Your task to perform on an android device: move an email to a new category in the gmail app Image 0: 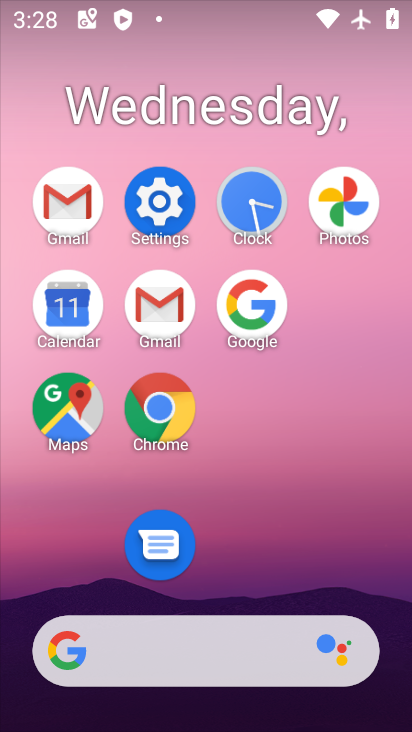
Step 0: click (183, 308)
Your task to perform on an android device: move an email to a new category in the gmail app Image 1: 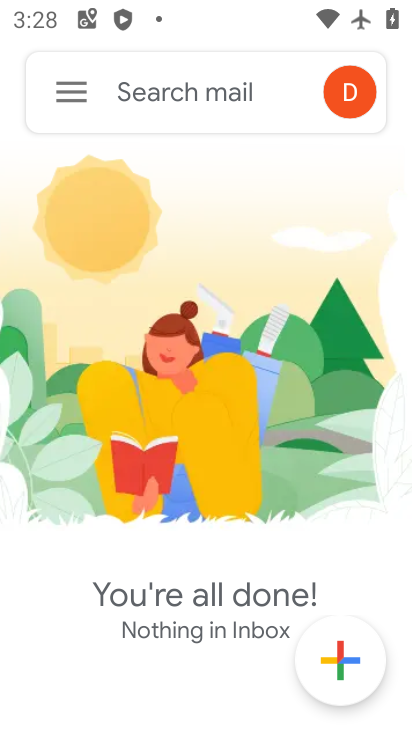
Step 1: click (92, 87)
Your task to perform on an android device: move an email to a new category in the gmail app Image 2: 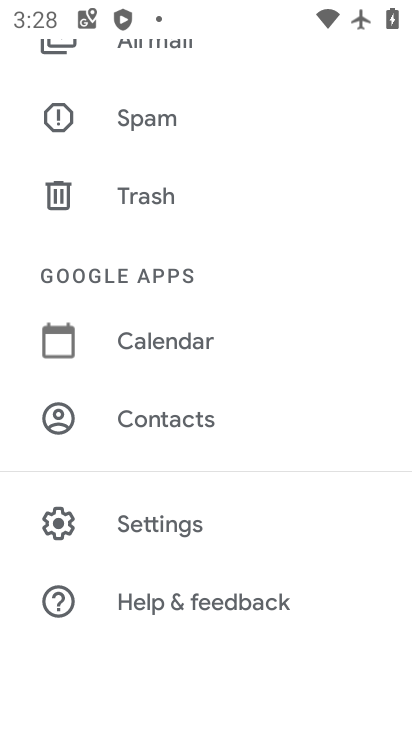
Step 2: drag from (215, 109) to (234, 216)
Your task to perform on an android device: move an email to a new category in the gmail app Image 3: 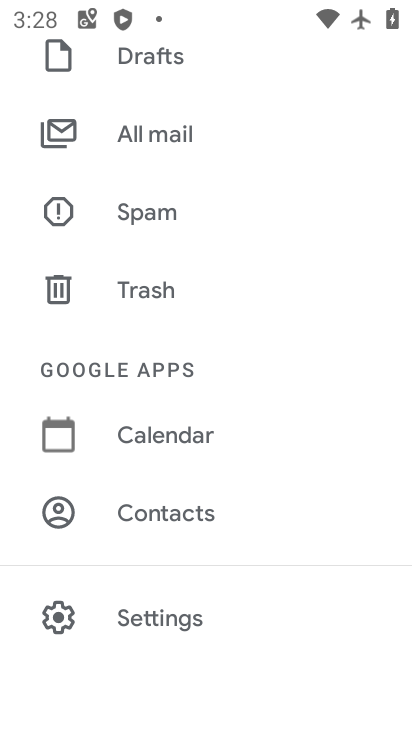
Step 3: click (191, 149)
Your task to perform on an android device: move an email to a new category in the gmail app Image 4: 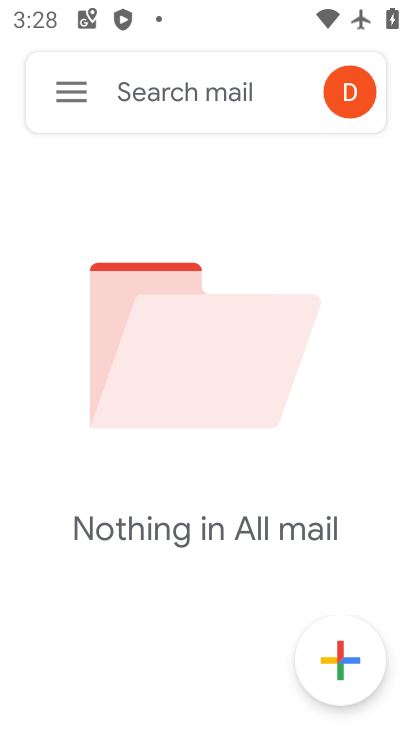
Step 4: task complete